Your task to perform on an android device: Open calendar and show me the first week of next month Image 0: 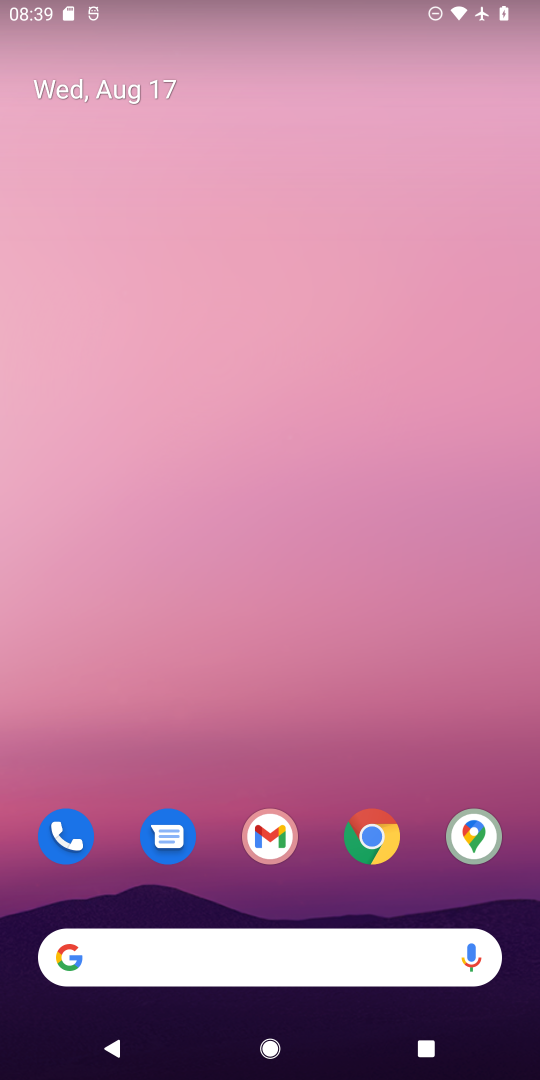
Step 0: drag from (251, 904) to (310, 361)
Your task to perform on an android device: Open calendar and show me the first week of next month Image 1: 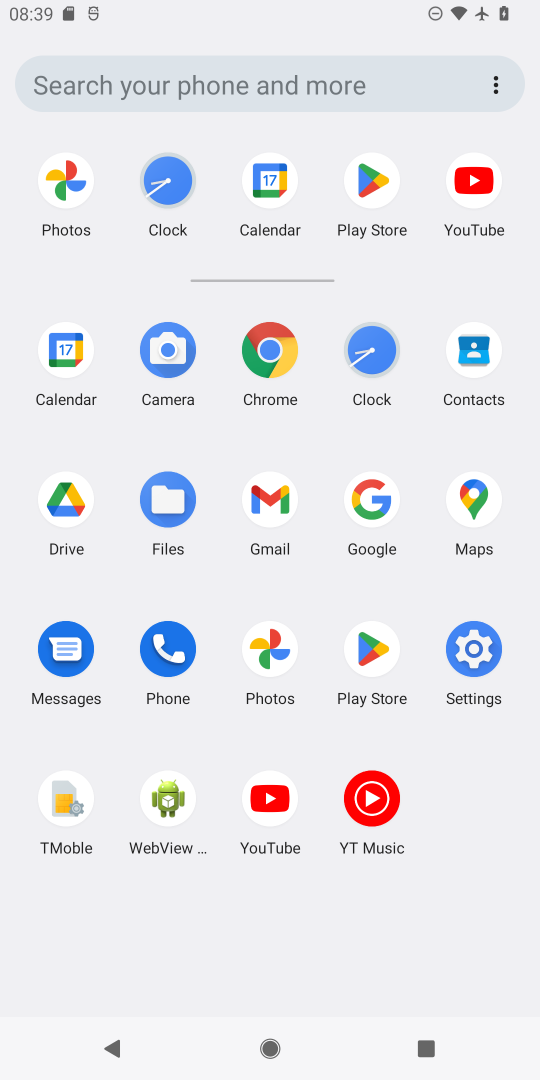
Step 1: click (57, 341)
Your task to perform on an android device: Open calendar and show me the first week of next month Image 2: 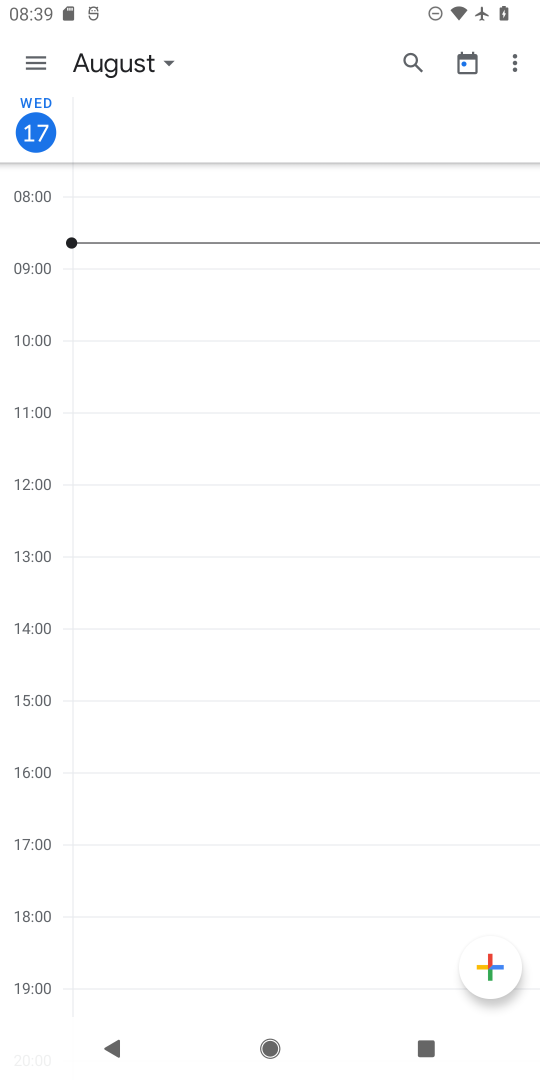
Step 2: click (36, 48)
Your task to perform on an android device: Open calendar and show me the first week of next month Image 3: 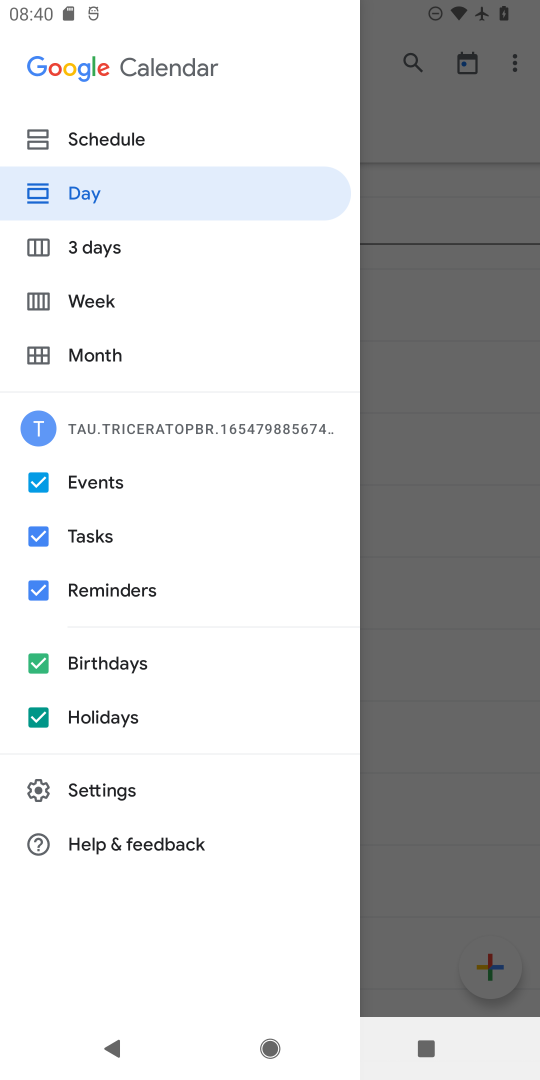
Step 3: click (120, 299)
Your task to perform on an android device: Open calendar and show me the first week of next month Image 4: 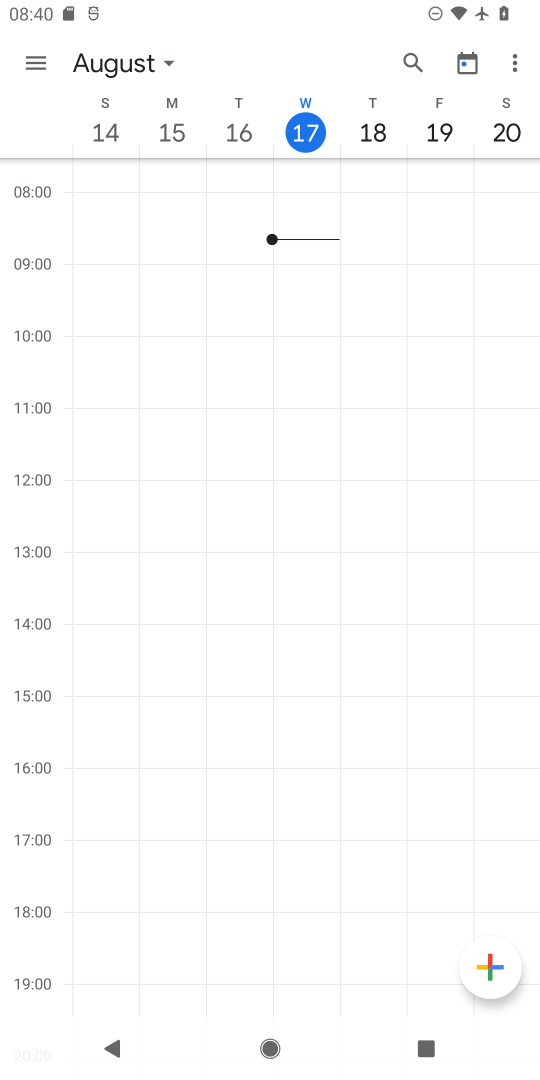
Step 4: drag from (491, 136) to (18, 97)
Your task to perform on an android device: Open calendar and show me the first week of next month Image 5: 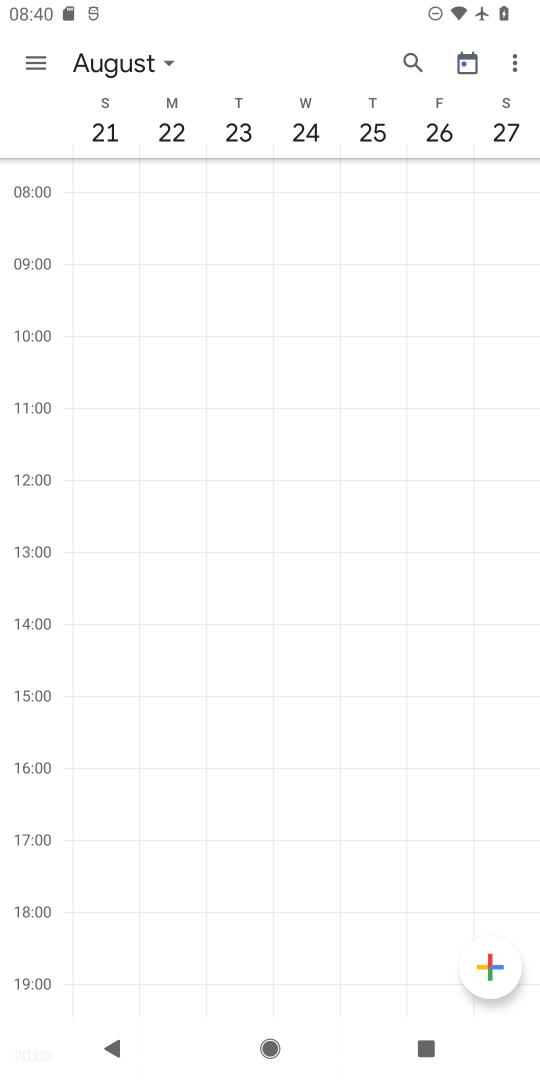
Step 5: drag from (486, 118) to (41, 108)
Your task to perform on an android device: Open calendar and show me the first week of next month Image 6: 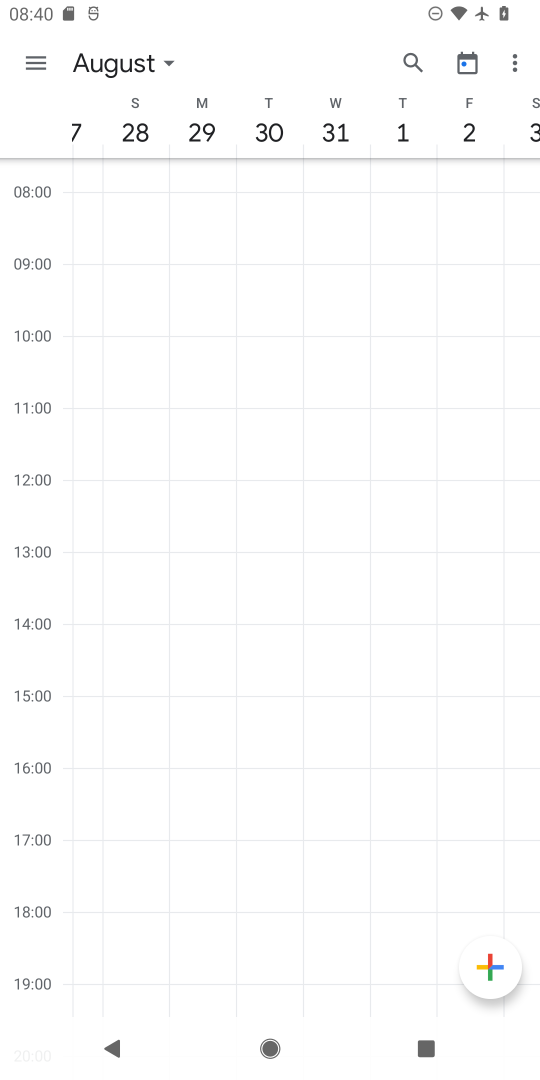
Step 6: drag from (478, 114) to (0, 111)
Your task to perform on an android device: Open calendar and show me the first week of next month Image 7: 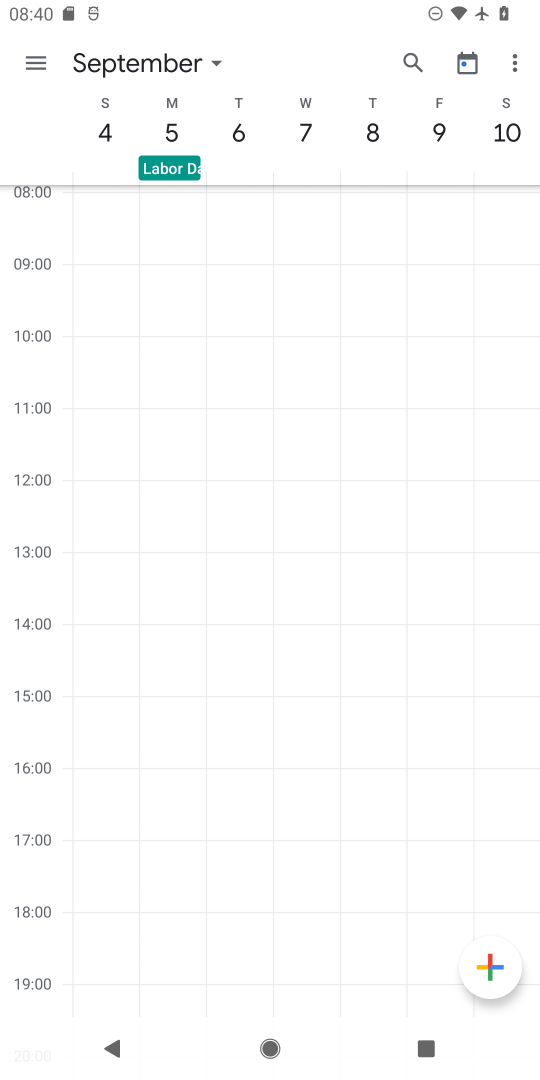
Step 7: click (445, 144)
Your task to perform on an android device: Open calendar and show me the first week of next month Image 8: 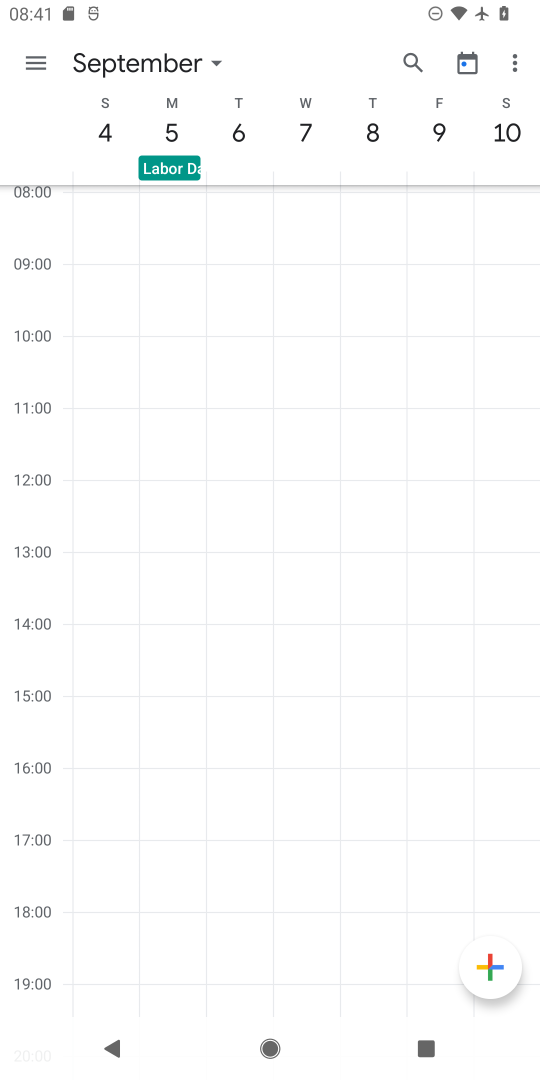
Step 8: task complete